Your task to perform on an android device: Open calendar and show me the second week of next month Image 0: 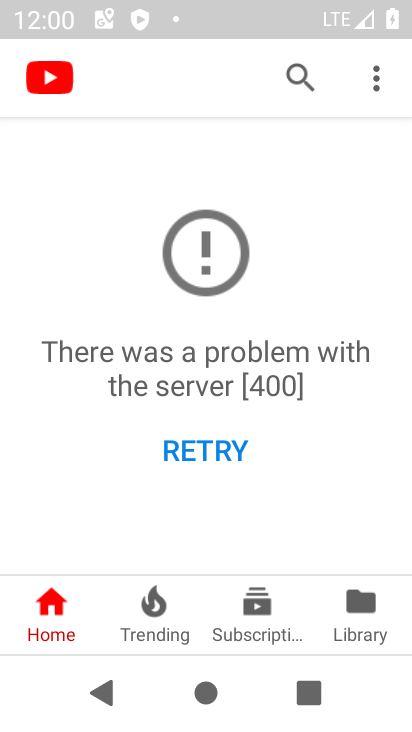
Step 0: press home button
Your task to perform on an android device: Open calendar and show me the second week of next month Image 1: 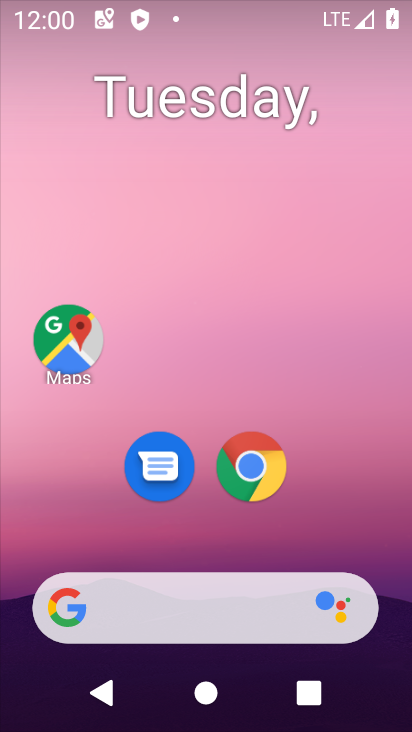
Step 1: drag from (279, 628) to (265, 120)
Your task to perform on an android device: Open calendar and show me the second week of next month Image 2: 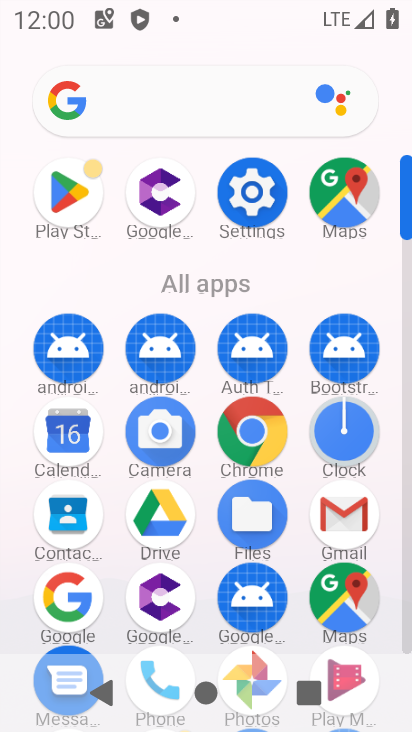
Step 2: click (63, 437)
Your task to perform on an android device: Open calendar and show me the second week of next month Image 3: 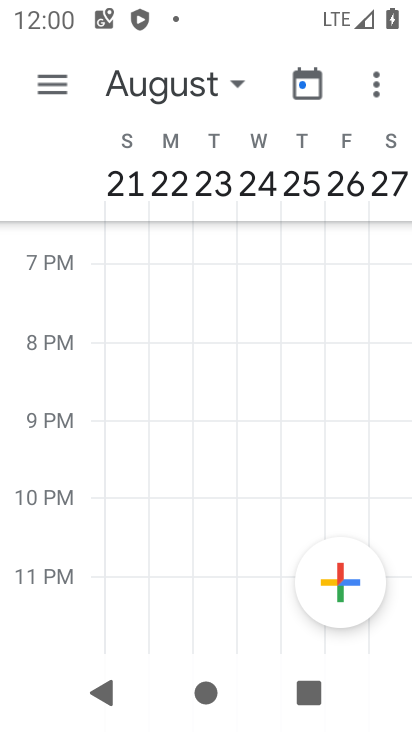
Step 3: task complete